Your task to perform on an android device: What's the weather? Image 0: 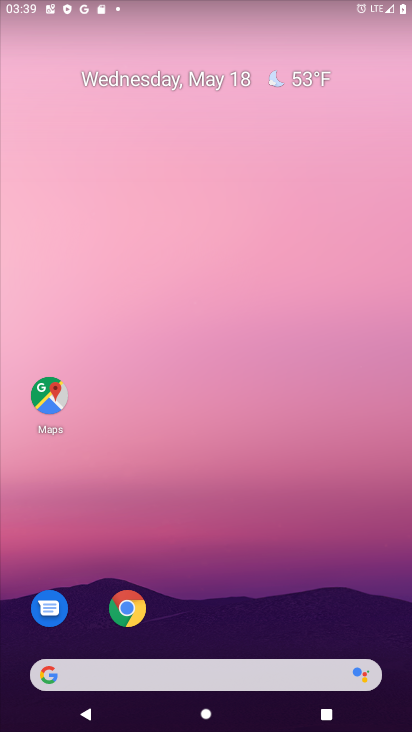
Step 0: click (301, 82)
Your task to perform on an android device: What's the weather? Image 1: 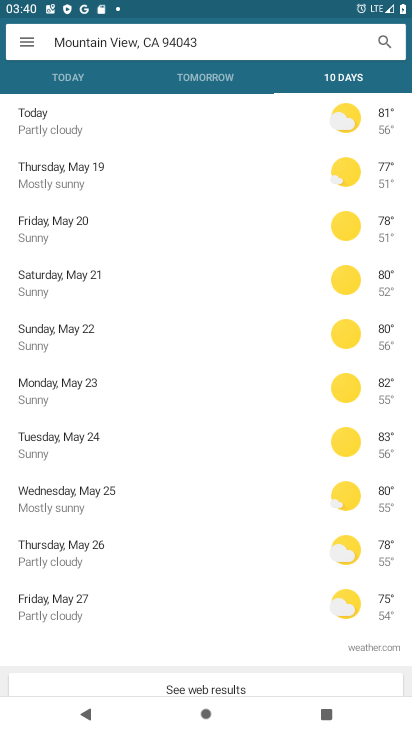
Step 1: click (70, 79)
Your task to perform on an android device: What's the weather? Image 2: 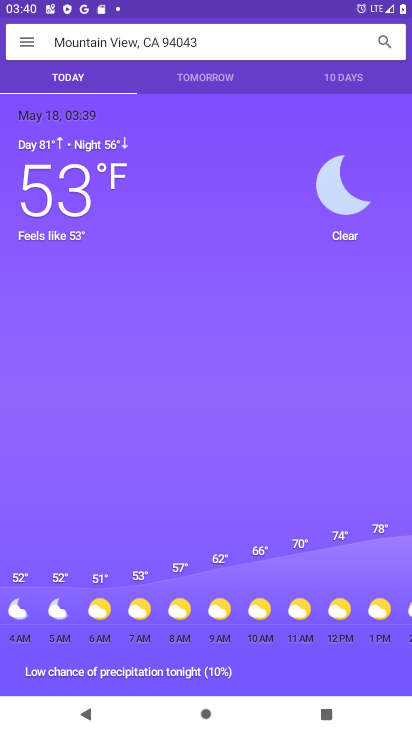
Step 2: task complete